Your task to perform on an android device: toggle notifications settings in the gmail app Image 0: 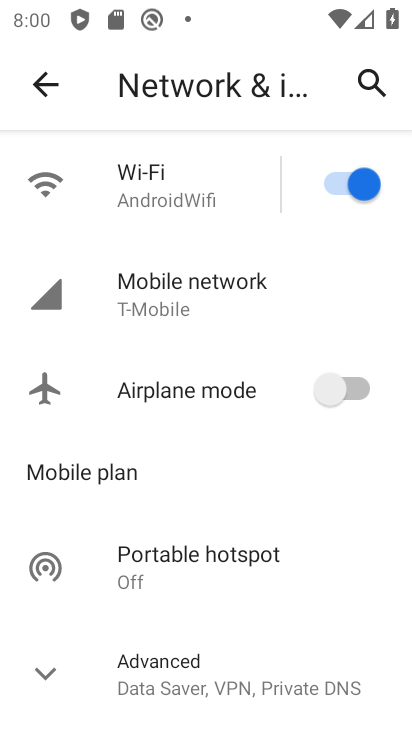
Step 0: press home button
Your task to perform on an android device: toggle notifications settings in the gmail app Image 1: 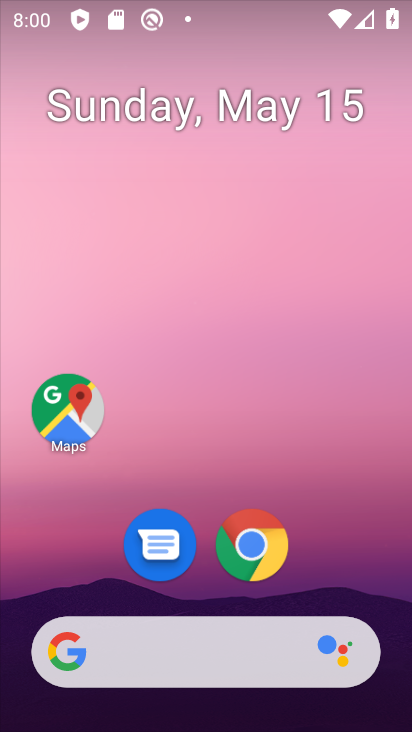
Step 1: drag from (354, 546) to (380, 186)
Your task to perform on an android device: toggle notifications settings in the gmail app Image 2: 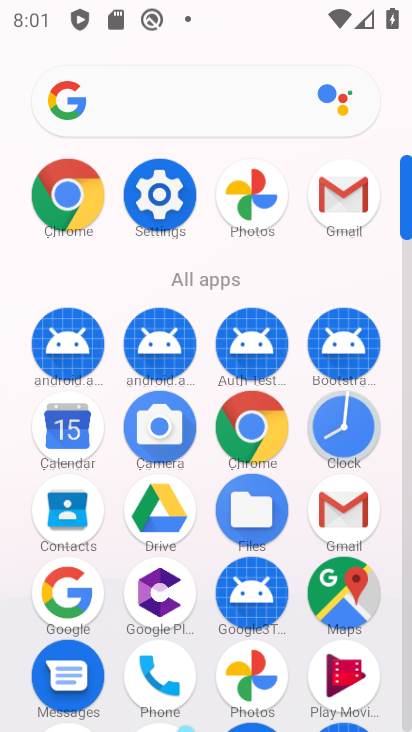
Step 2: click (368, 508)
Your task to perform on an android device: toggle notifications settings in the gmail app Image 3: 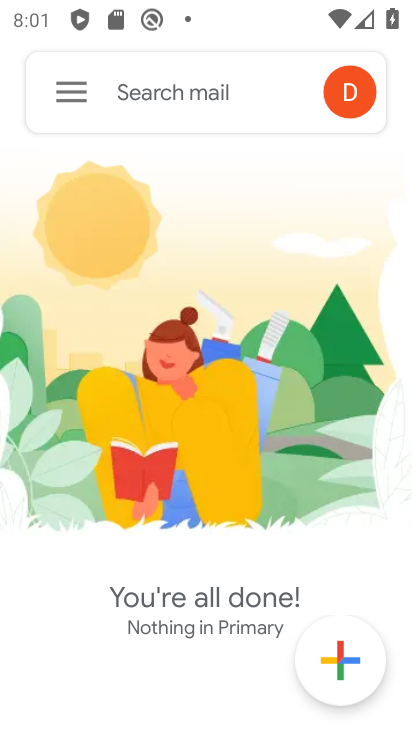
Step 3: click (54, 93)
Your task to perform on an android device: toggle notifications settings in the gmail app Image 4: 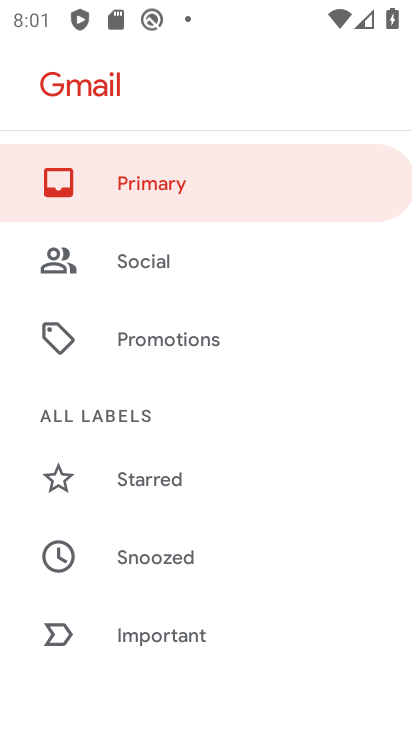
Step 4: drag from (311, 581) to (365, 319)
Your task to perform on an android device: toggle notifications settings in the gmail app Image 5: 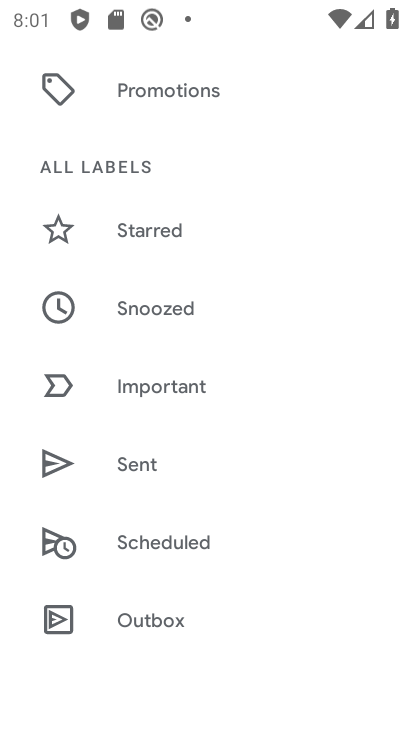
Step 5: drag from (327, 605) to (345, 329)
Your task to perform on an android device: toggle notifications settings in the gmail app Image 6: 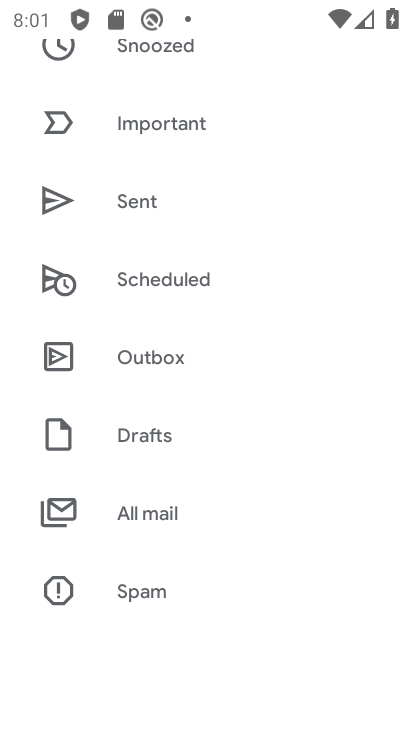
Step 6: drag from (267, 589) to (305, 334)
Your task to perform on an android device: toggle notifications settings in the gmail app Image 7: 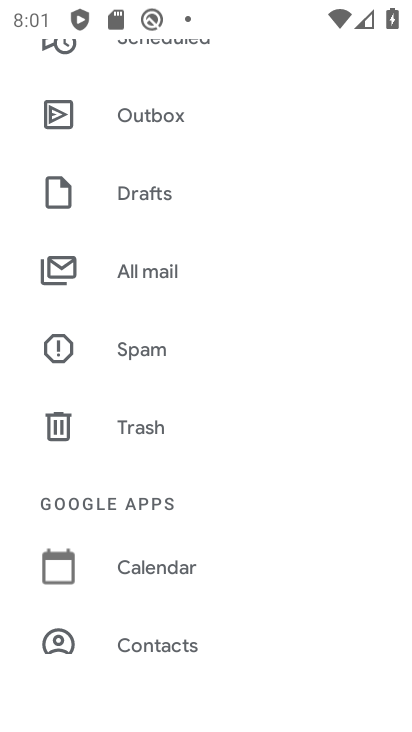
Step 7: drag from (293, 604) to (305, 395)
Your task to perform on an android device: toggle notifications settings in the gmail app Image 8: 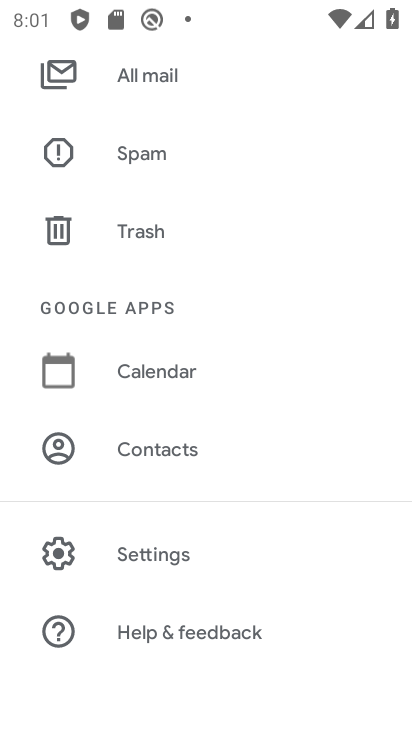
Step 8: drag from (310, 639) to (323, 451)
Your task to perform on an android device: toggle notifications settings in the gmail app Image 9: 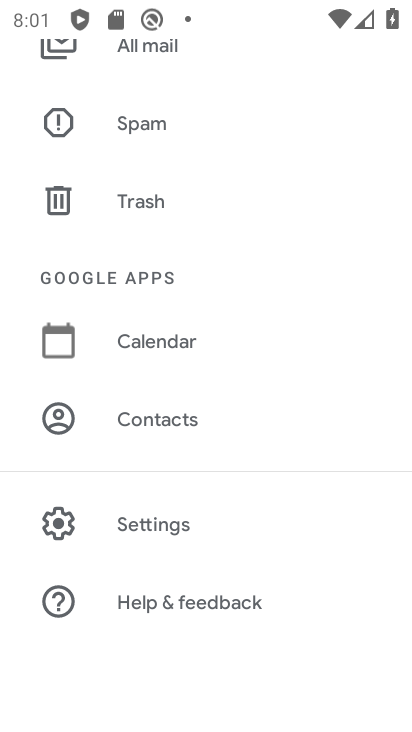
Step 9: click (168, 522)
Your task to perform on an android device: toggle notifications settings in the gmail app Image 10: 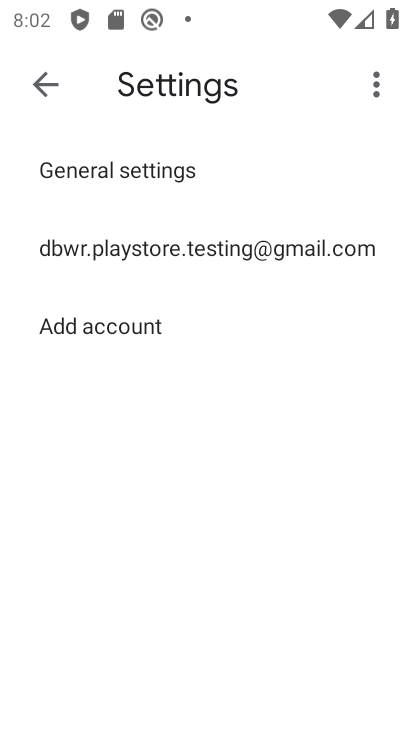
Step 10: click (252, 261)
Your task to perform on an android device: toggle notifications settings in the gmail app Image 11: 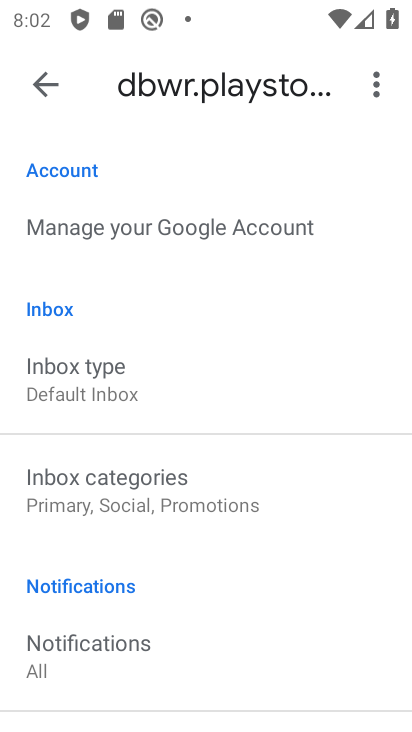
Step 11: drag from (320, 617) to (327, 246)
Your task to perform on an android device: toggle notifications settings in the gmail app Image 12: 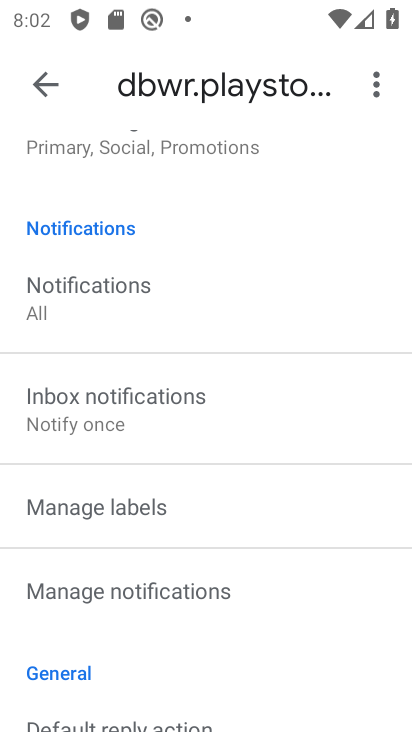
Step 12: click (189, 589)
Your task to perform on an android device: toggle notifications settings in the gmail app Image 13: 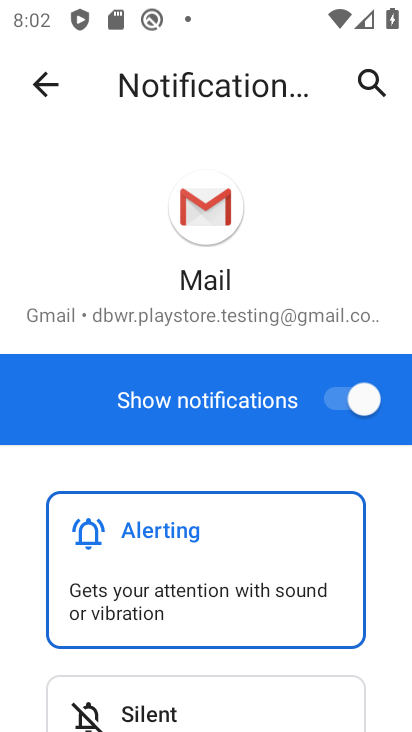
Step 13: click (357, 403)
Your task to perform on an android device: toggle notifications settings in the gmail app Image 14: 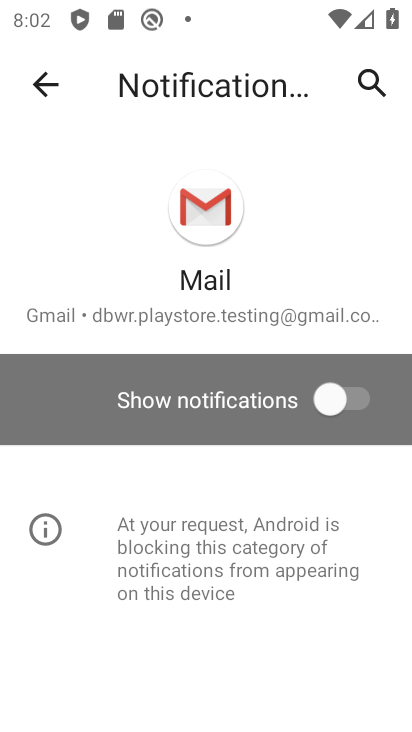
Step 14: task complete